Your task to perform on an android device: empty trash in the gmail app Image 0: 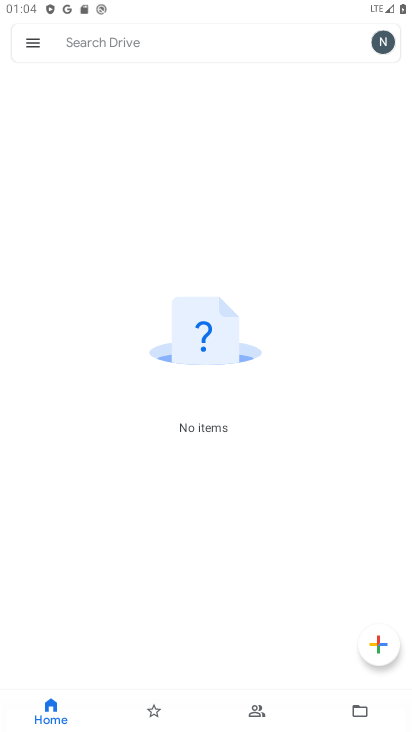
Step 0: press home button
Your task to perform on an android device: empty trash in the gmail app Image 1: 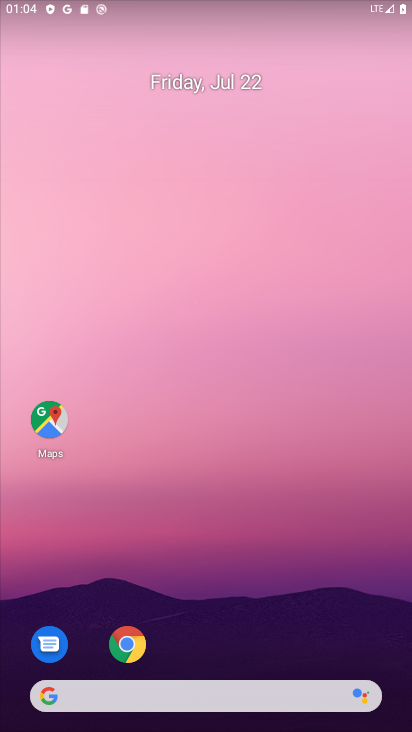
Step 1: drag from (214, 717) to (101, 20)
Your task to perform on an android device: empty trash in the gmail app Image 2: 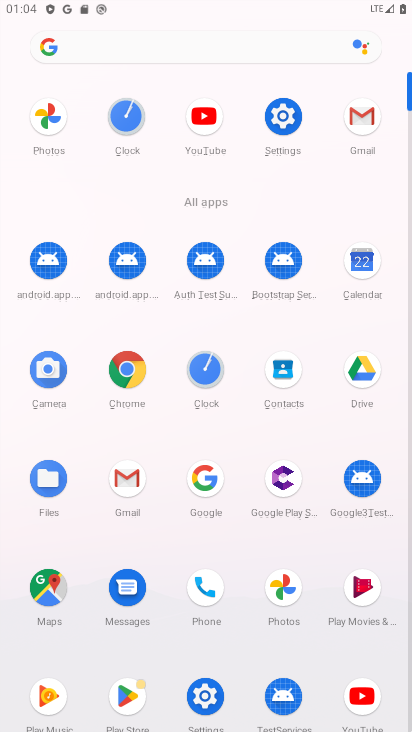
Step 2: click (360, 115)
Your task to perform on an android device: empty trash in the gmail app Image 3: 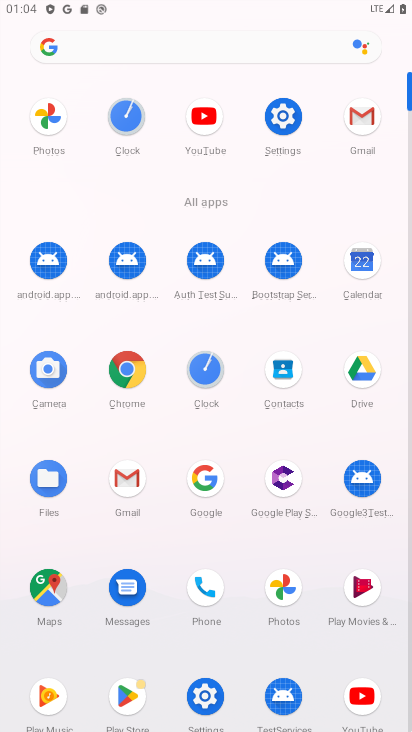
Step 3: click (360, 115)
Your task to perform on an android device: empty trash in the gmail app Image 4: 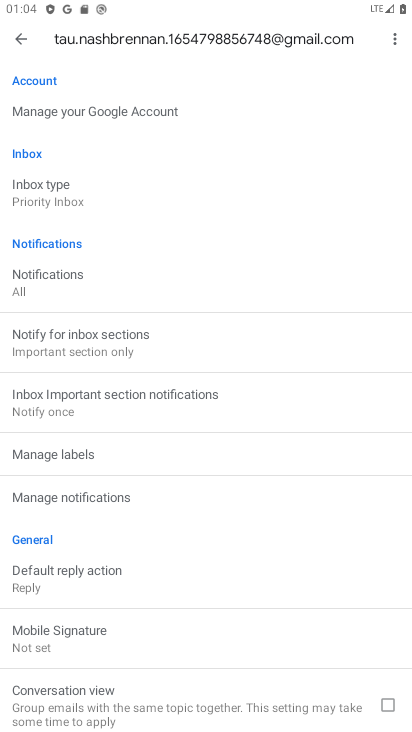
Step 4: click (18, 34)
Your task to perform on an android device: empty trash in the gmail app Image 5: 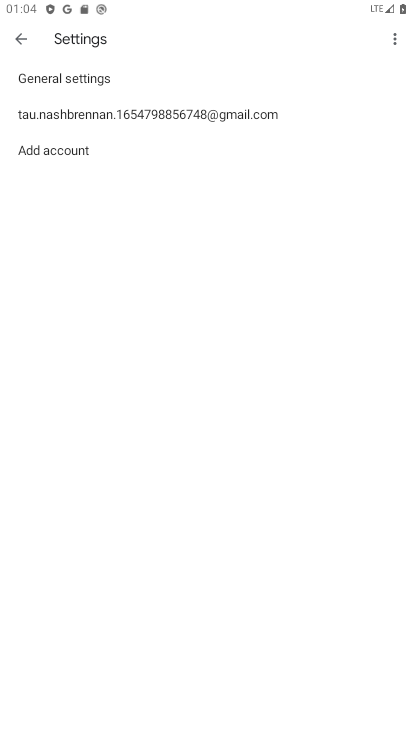
Step 5: click (16, 34)
Your task to perform on an android device: empty trash in the gmail app Image 6: 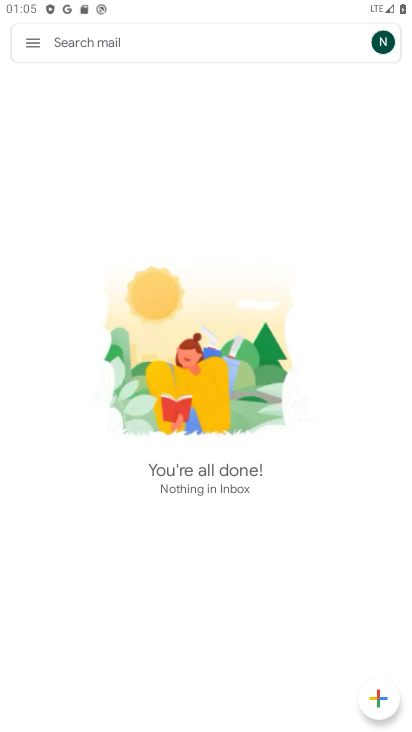
Step 6: click (25, 43)
Your task to perform on an android device: empty trash in the gmail app Image 7: 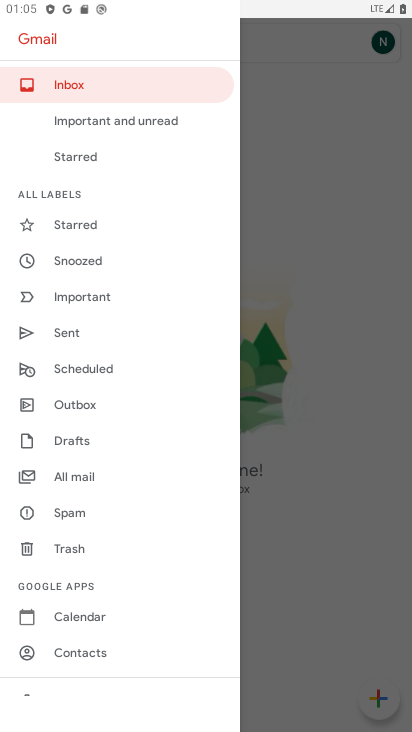
Step 7: click (76, 545)
Your task to perform on an android device: empty trash in the gmail app Image 8: 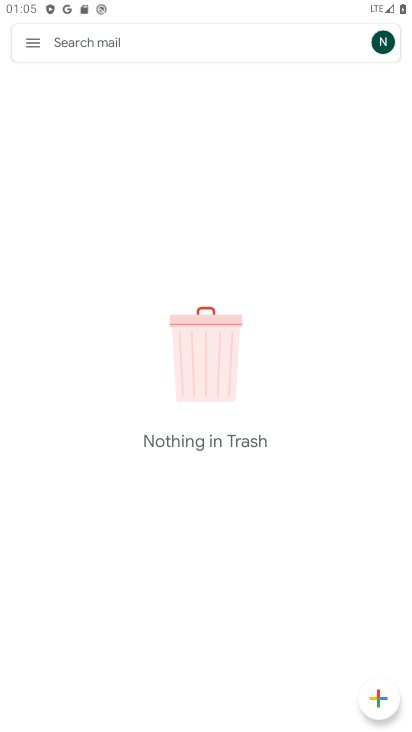
Step 8: task complete